Your task to perform on an android device: change keyboard looks Image 0: 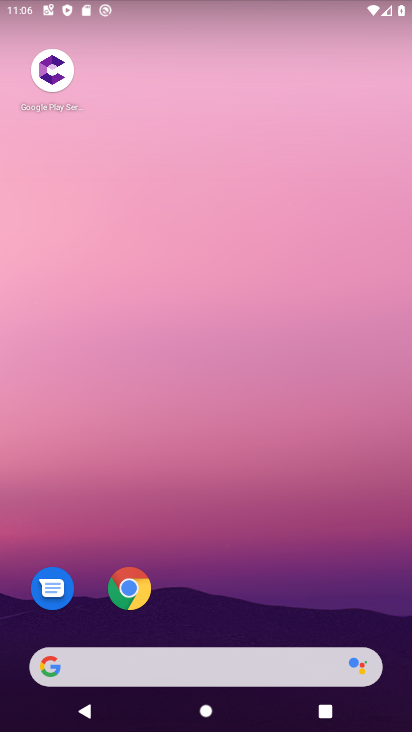
Step 0: press home button
Your task to perform on an android device: change keyboard looks Image 1: 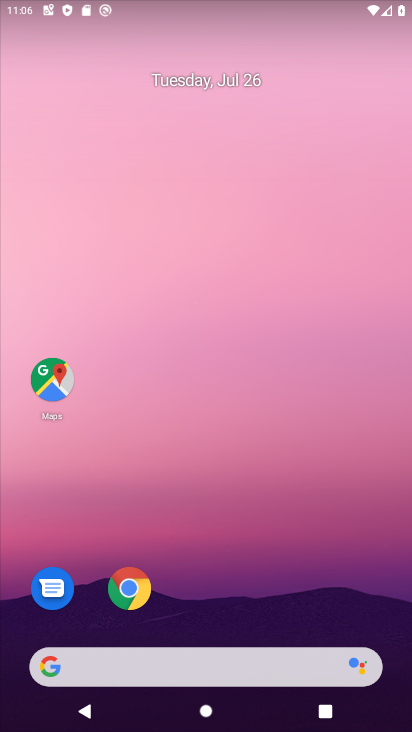
Step 1: drag from (259, 559) to (299, 70)
Your task to perform on an android device: change keyboard looks Image 2: 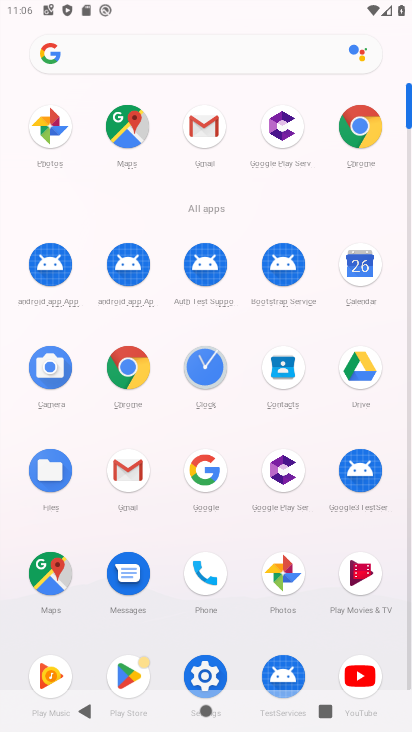
Step 2: click (207, 664)
Your task to perform on an android device: change keyboard looks Image 3: 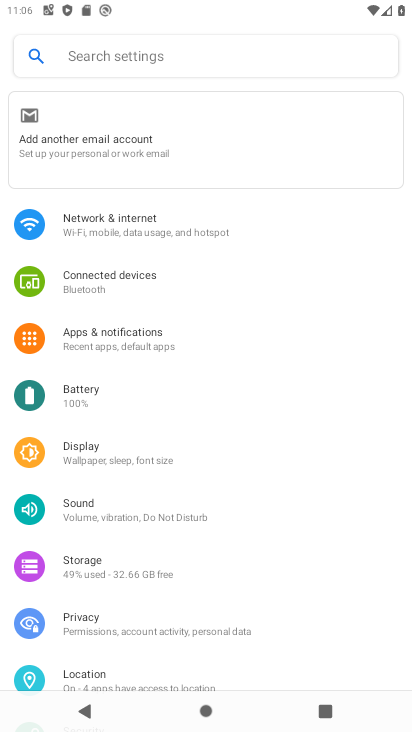
Step 3: drag from (198, 636) to (221, 312)
Your task to perform on an android device: change keyboard looks Image 4: 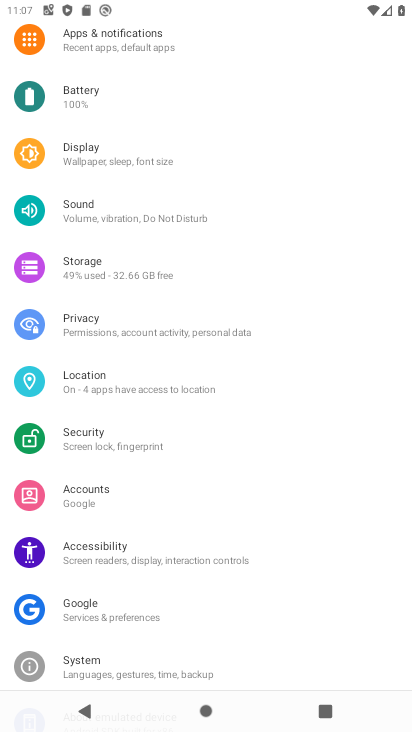
Step 4: drag from (98, 635) to (109, 406)
Your task to perform on an android device: change keyboard looks Image 5: 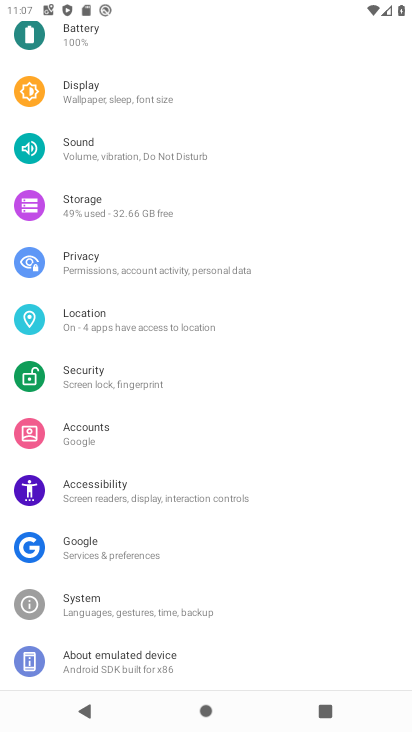
Step 5: click (72, 596)
Your task to perform on an android device: change keyboard looks Image 6: 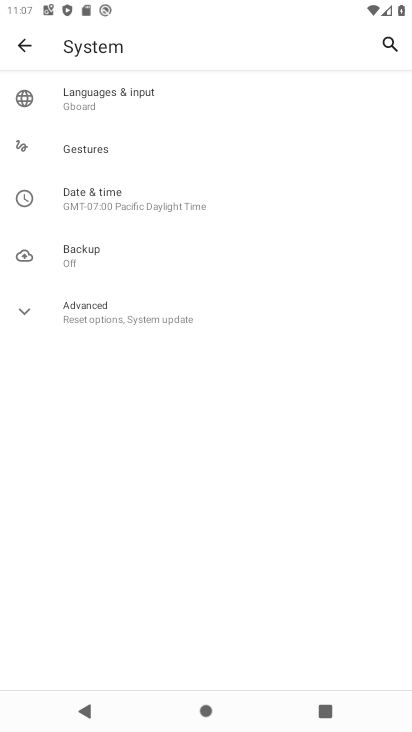
Step 6: click (88, 151)
Your task to perform on an android device: change keyboard looks Image 7: 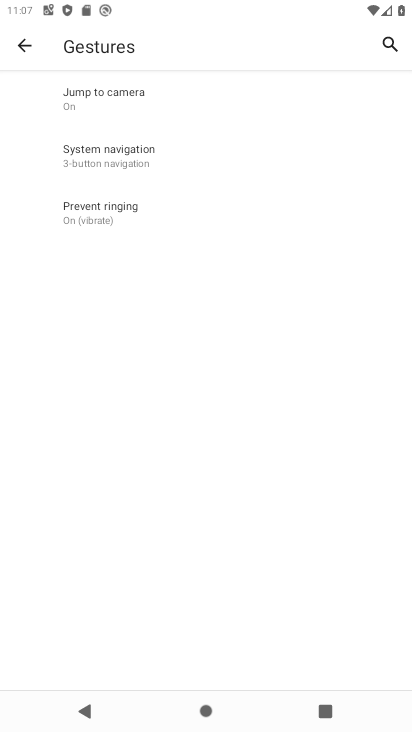
Step 7: click (24, 49)
Your task to perform on an android device: change keyboard looks Image 8: 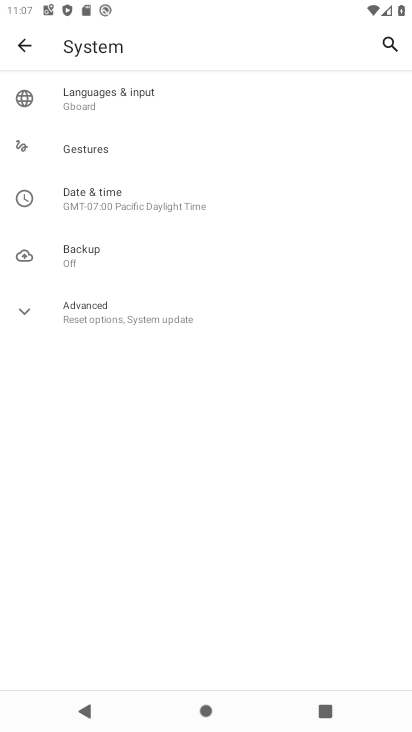
Step 8: click (111, 93)
Your task to perform on an android device: change keyboard looks Image 9: 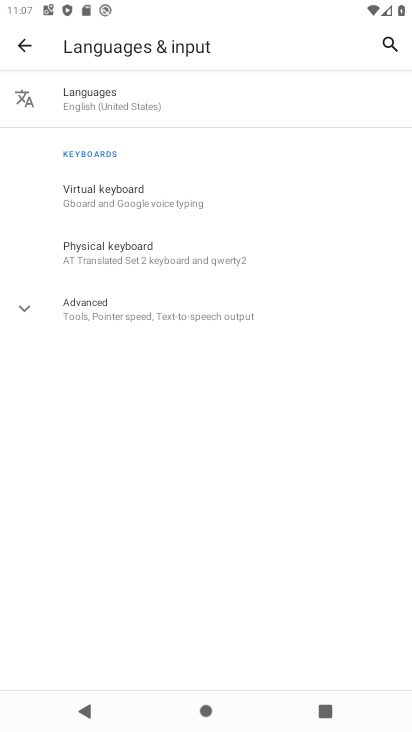
Step 9: click (102, 194)
Your task to perform on an android device: change keyboard looks Image 10: 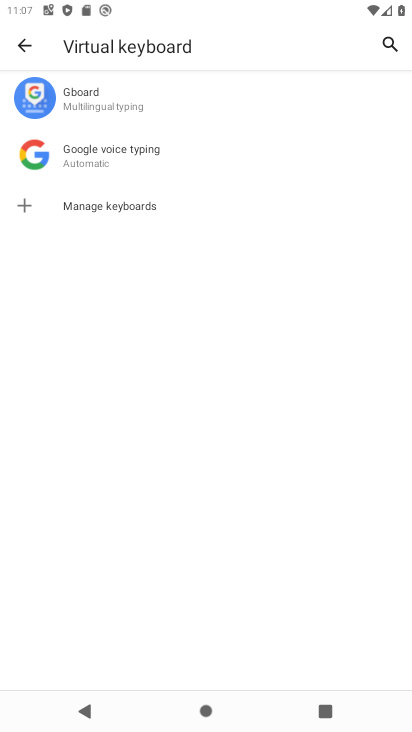
Step 10: click (80, 95)
Your task to perform on an android device: change keyboard looks Image 11: 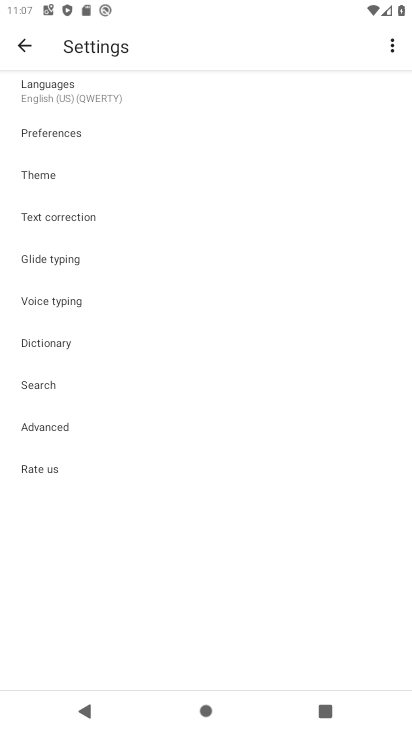
Step 11: click (25, 177)
Your task to perform on an android device: change keyboard looks Image 12: 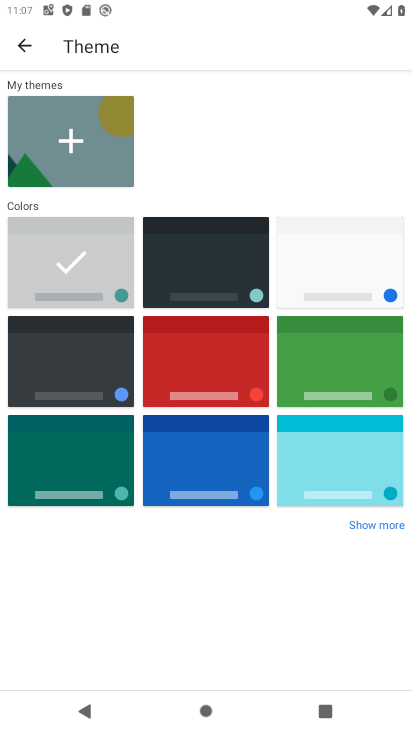
Step 12: click (197, 268)
Your task to perform on an android device: change keyboard looks Image 13: 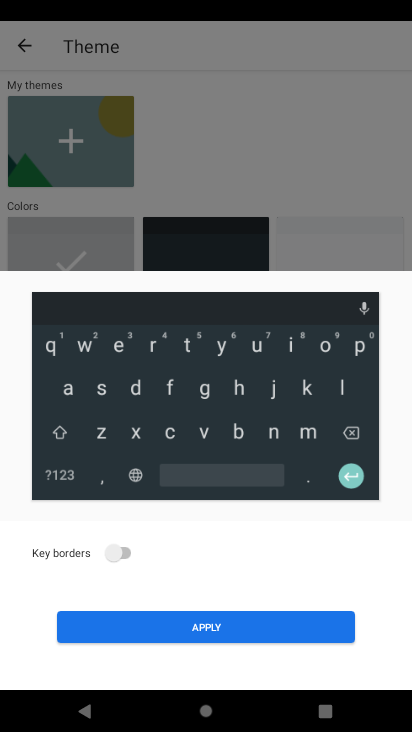
Step 13: click (118, 541)
Your task to perform on an android device: change keyboard looks Image 14: 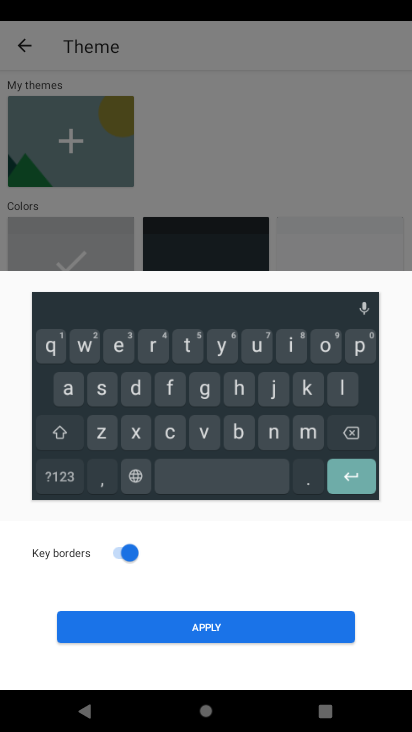
Step 14: click (141, 620)
Your task to perform on an android device: change keyboard looks Image 15: 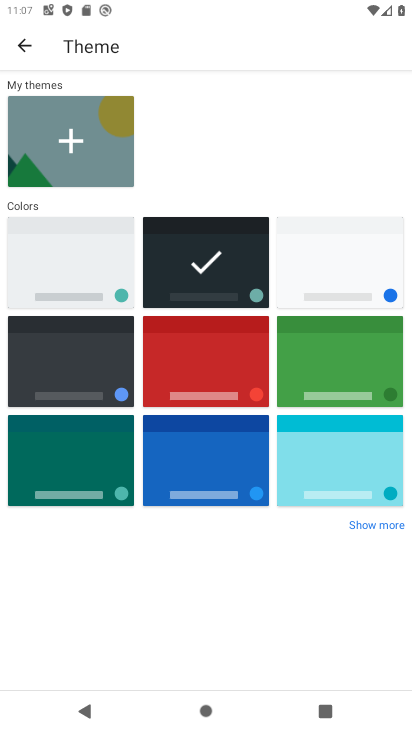
Step 15: task complete